Your task to perform on an android device: Check the weather Image 0: 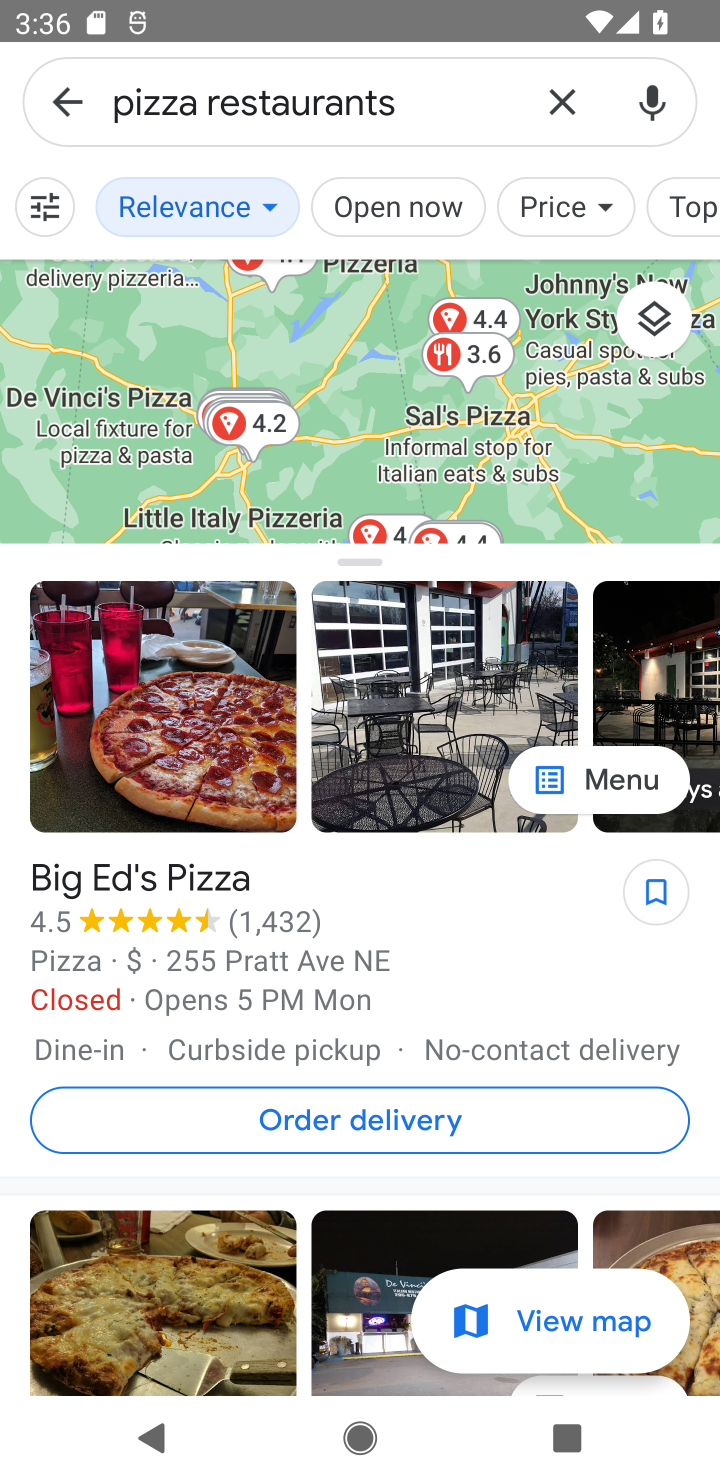
Step 0: press back button
Your task to perform on an android device: Check the weather Image 1: 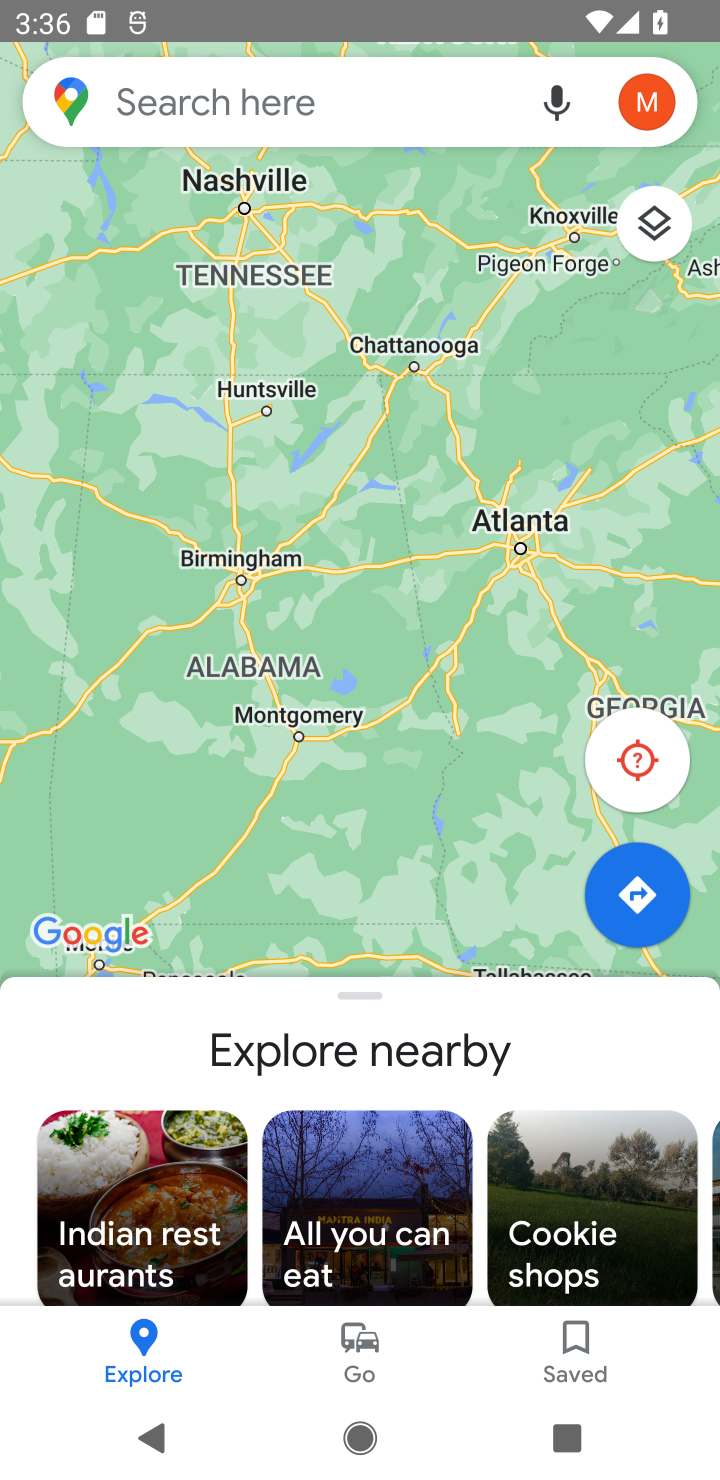
Step 1: press back button
Your task to perform on an android device: Check the weather Image 2: 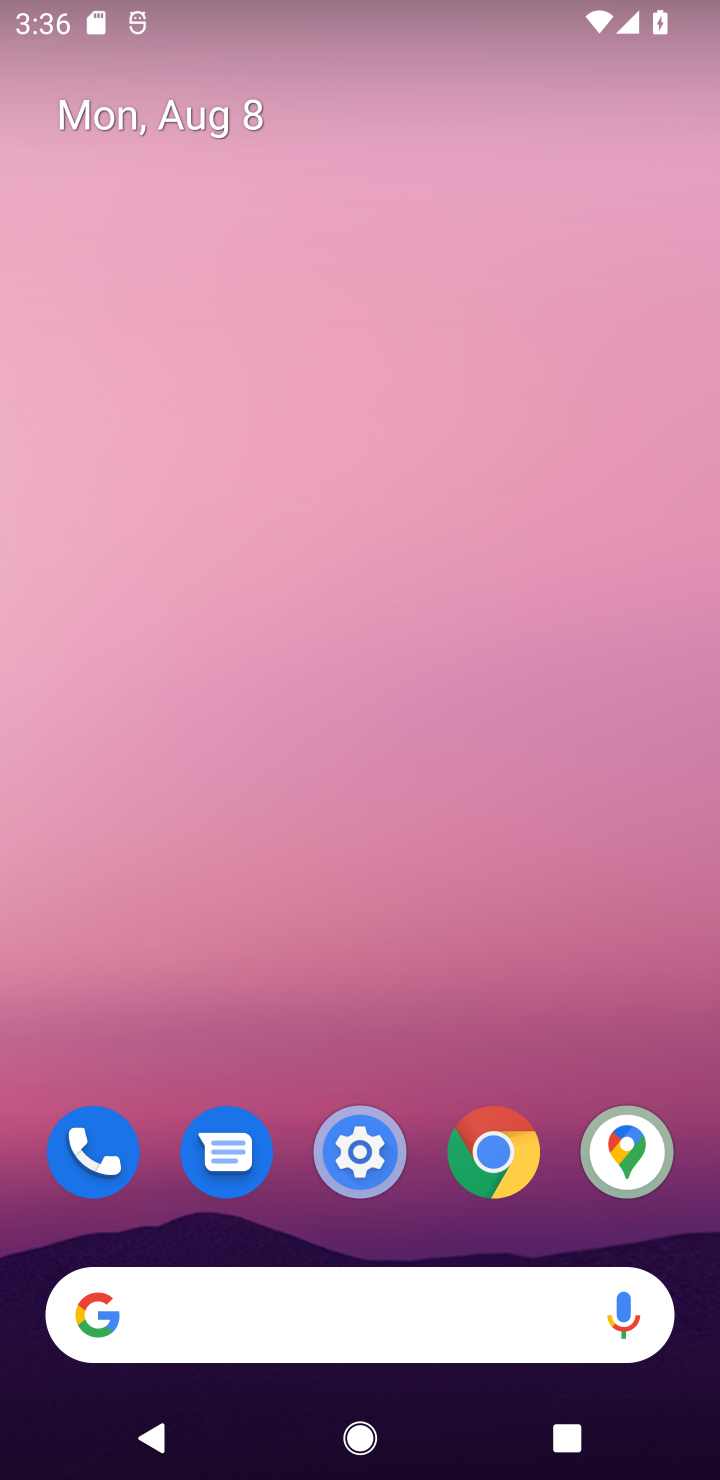
Step 2: click (379, 1366)
Your task to perform on an android device: Check the weather Image 3: 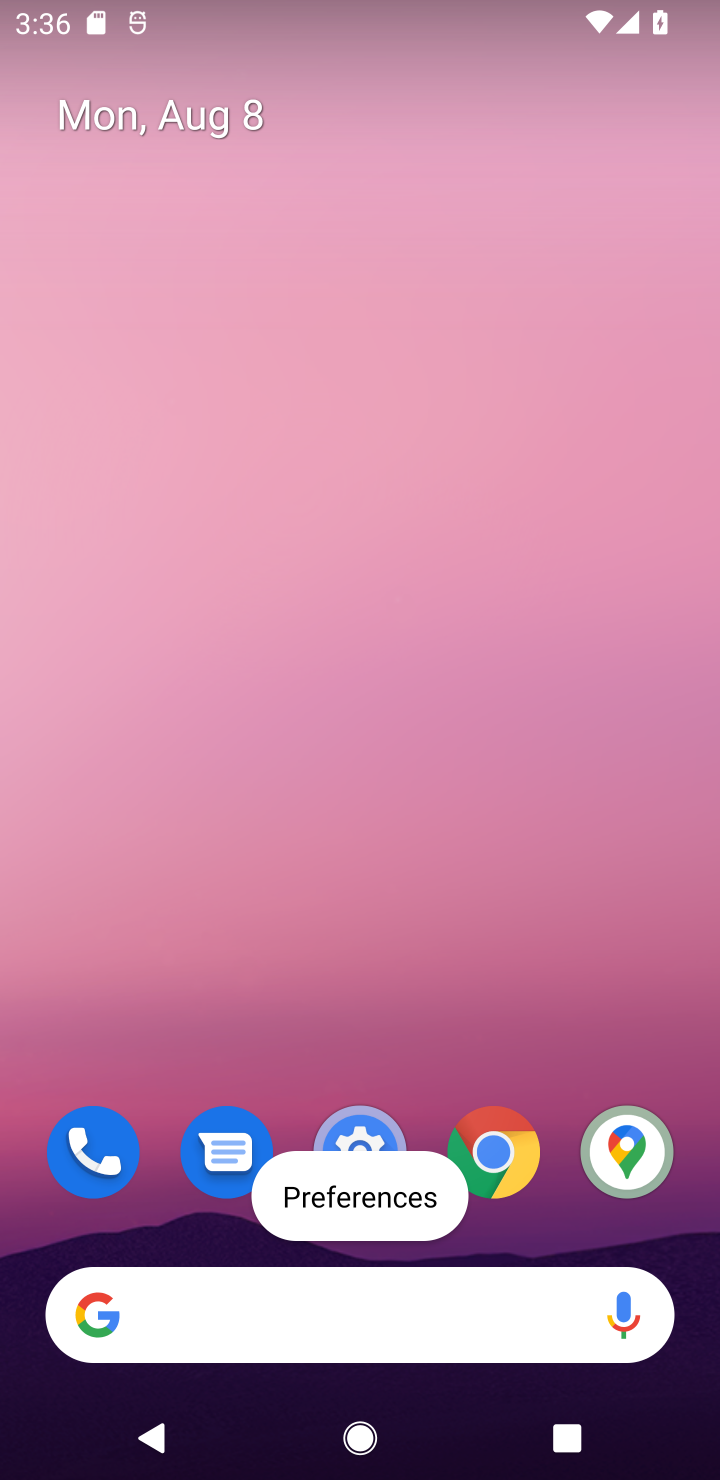
Step 3: click (384, 1318)
Your task to perform on an android device: Check the weather Image 4: 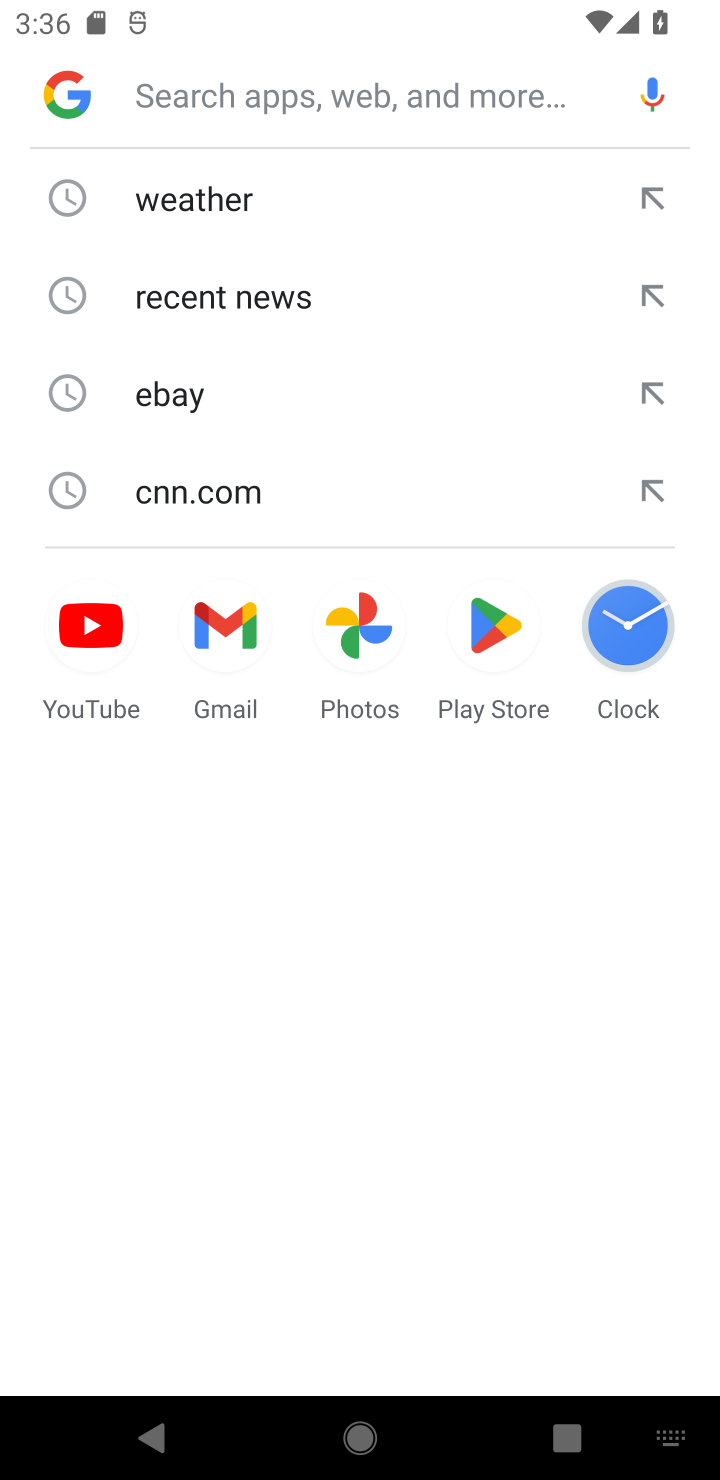
Step 4: click (221, 201)
Your task to perform on an android device: Check the weather Image 5: 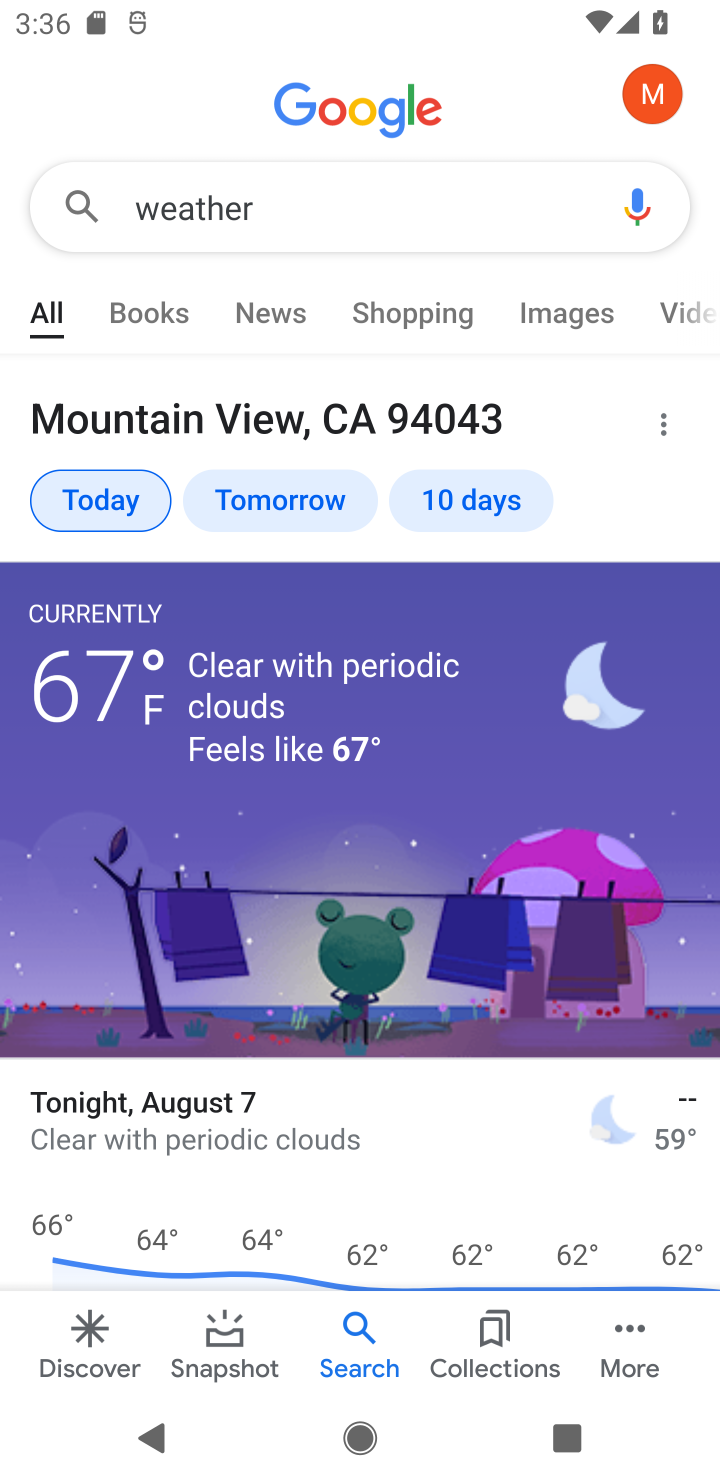
Step 5: task complete